Your task to perform on an android device: open a bookmark in the chrome app Image 0: 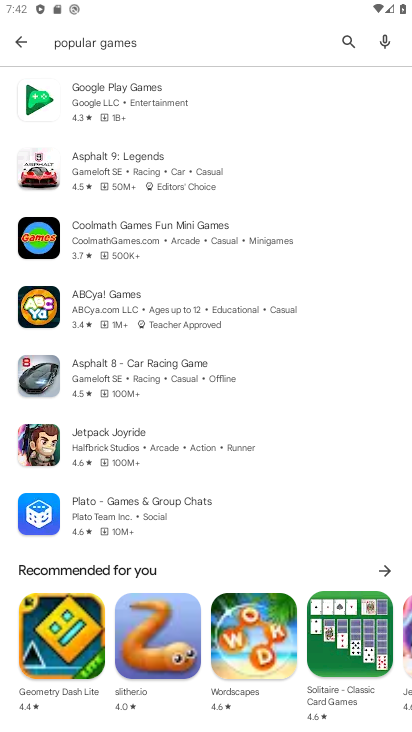
Step 0: press back button
Your task to perform on an android device: open a bookmark in the chrome app Image 1: 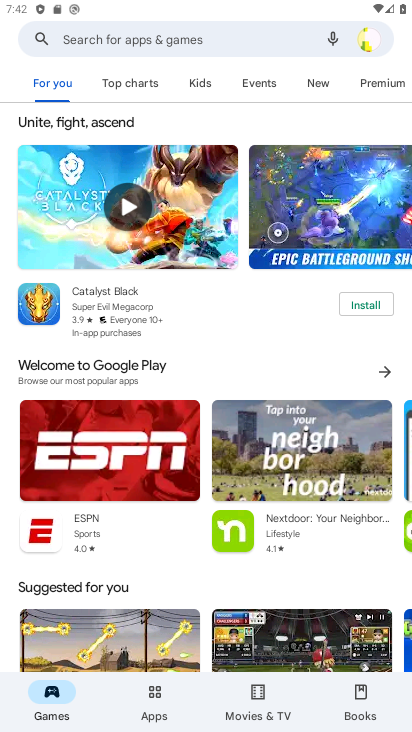
Step 1: press back button
Your task to perform on an android device: open a bookmark in the chrome app Image 2: 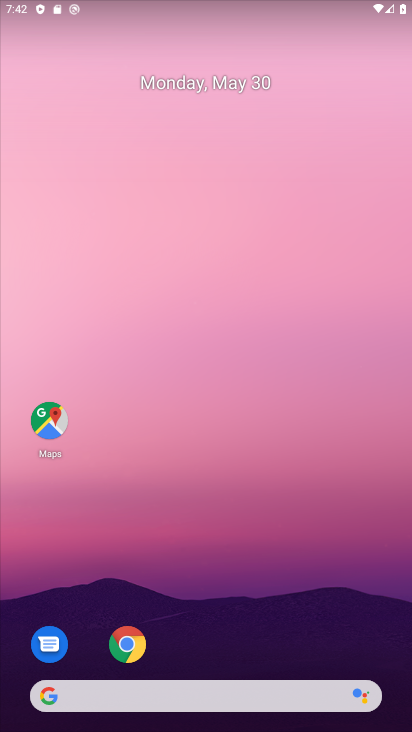
Step 2: click (128, 645)
Your task to perform on an android device: open a bookmark in the chrome app Image 3: 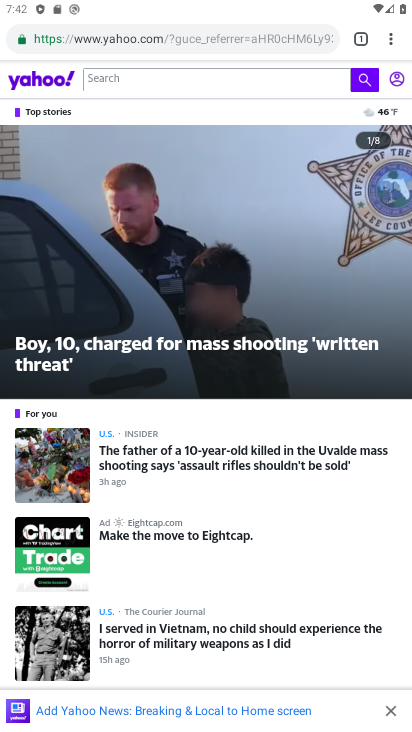
Step 3: click (391, 38)
Your task to perform on an android device: open a bookmark in the chrome app Image 4: 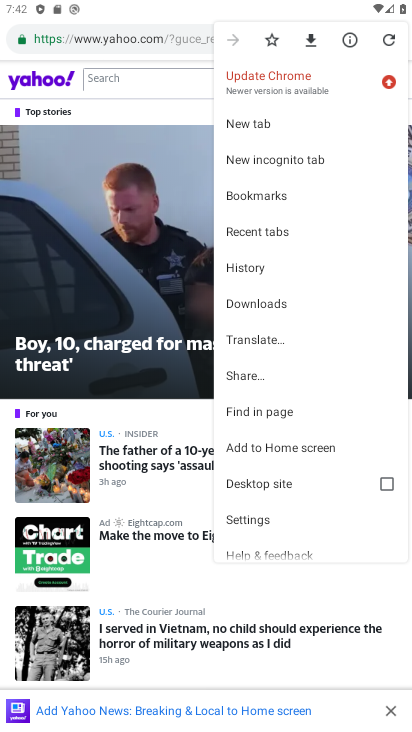
Step 4: click (263, 194)
Your task to perform on an android device: open a bookmark in the chrome app Image 5: 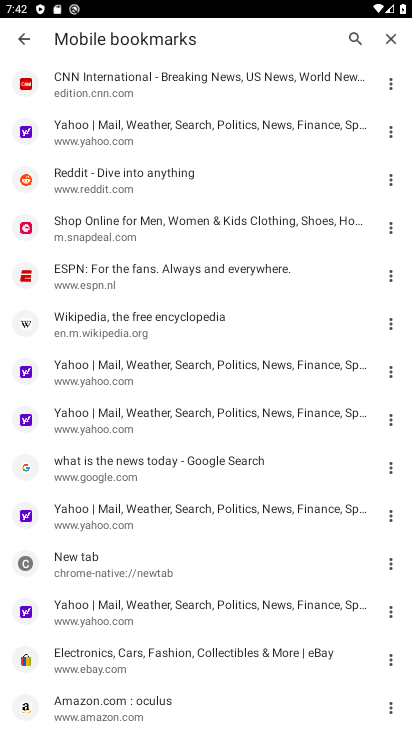
Step 5: task complete